Your task to perform on an android device: set default search engine in the chrome app Image 0: 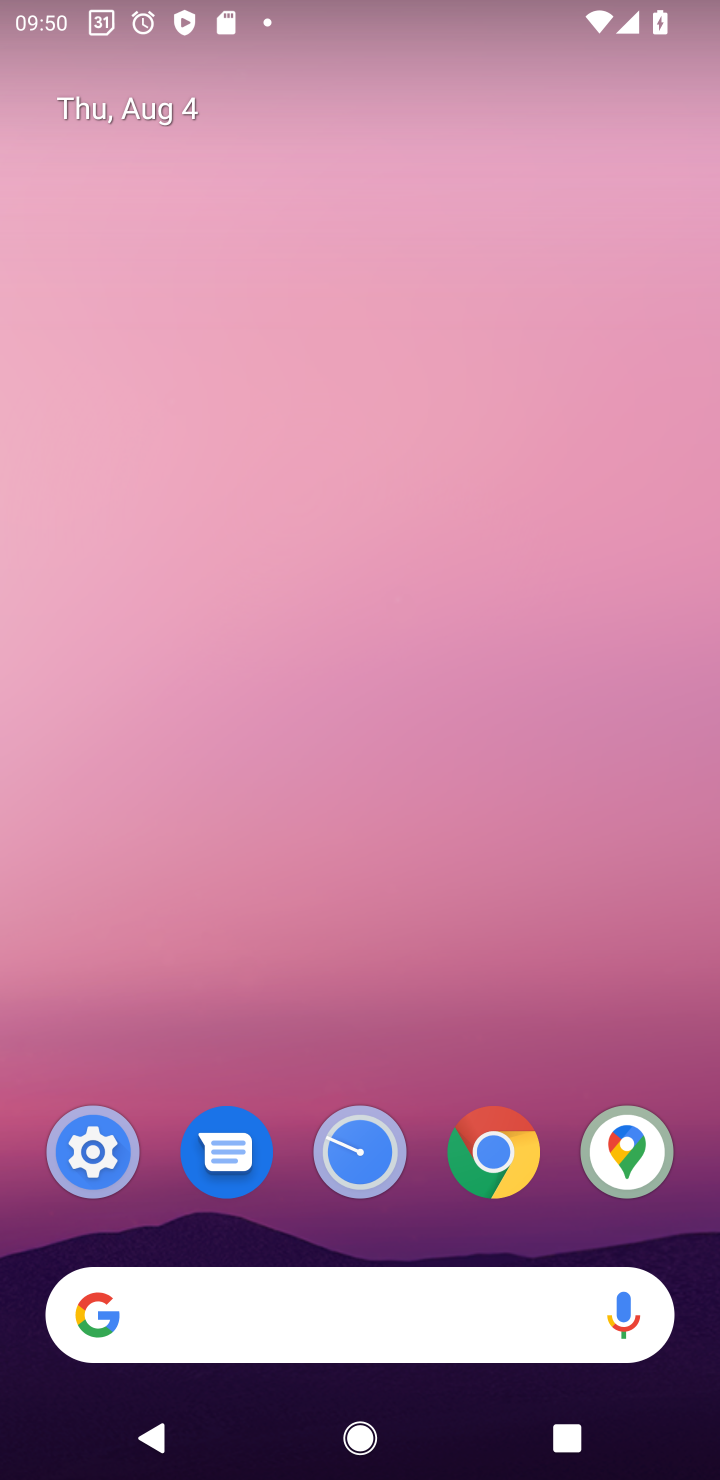
Step 0: click (502, 1155)
Your task to perform on an android device: set default search engine in the chrome app Image 1: 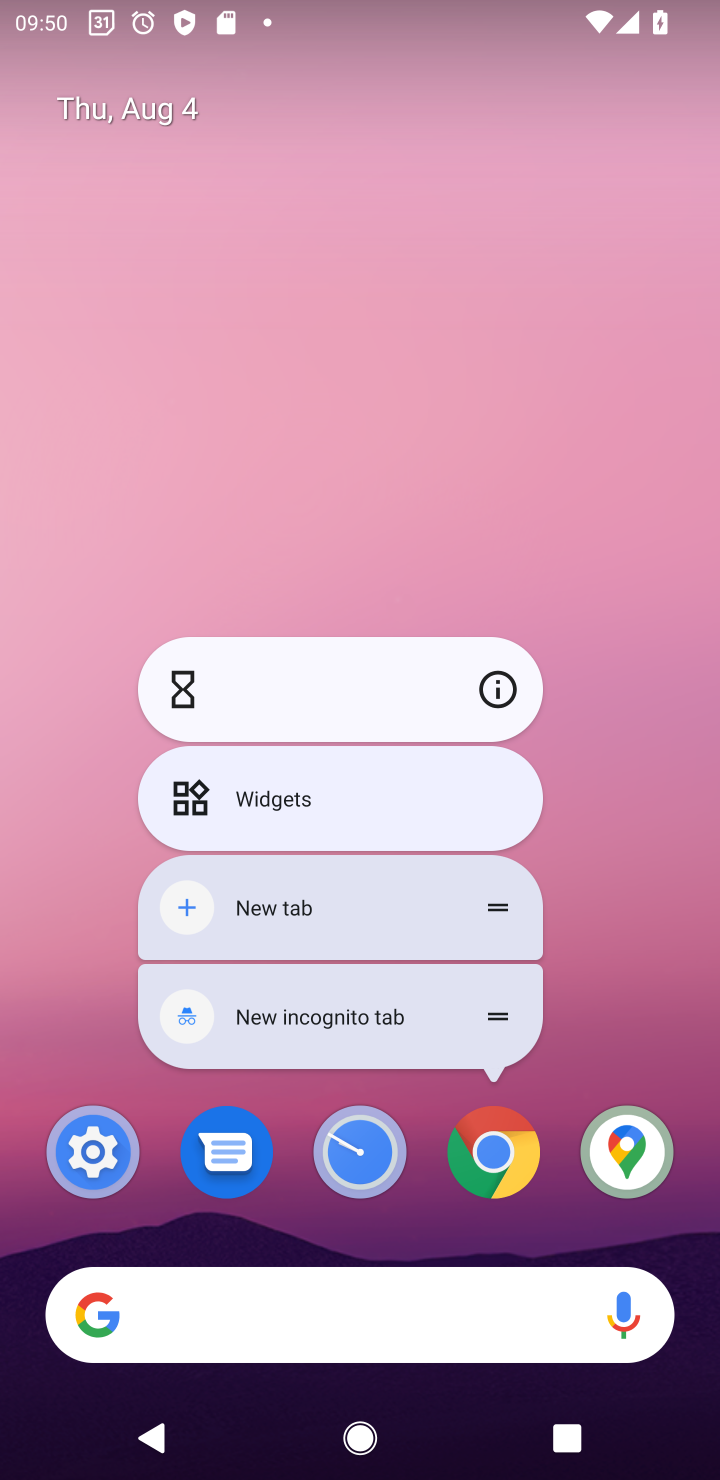
Step 1: click (507, 1138)
Your task to perform on an android device: set default search engine in the chrome app Image 2: 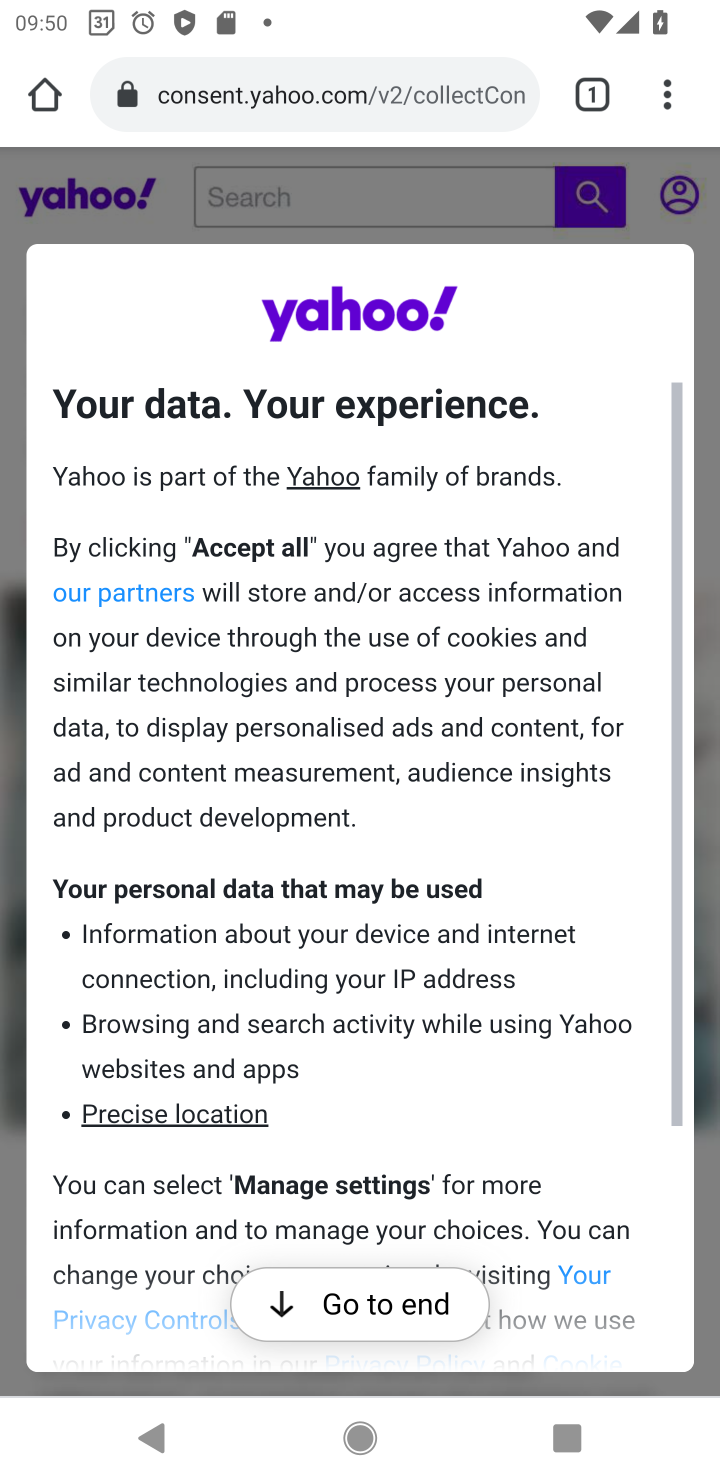
Step 2: click (673, 83)
Your task to perform on an android device: set default search engine in the chrome app Image 3: 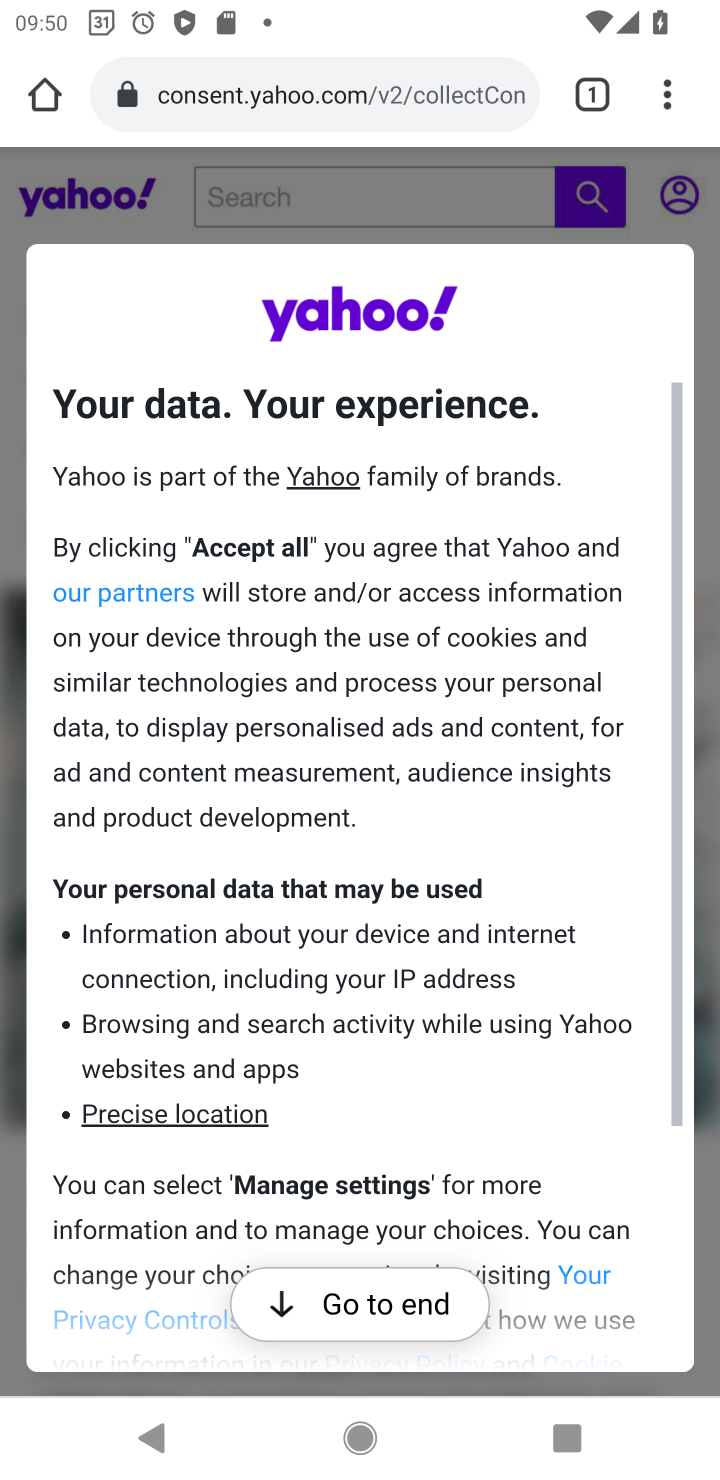
Step 3: click (667, 91)
Your task to perform on an android device: set default search engine in the chrome app Image 4: 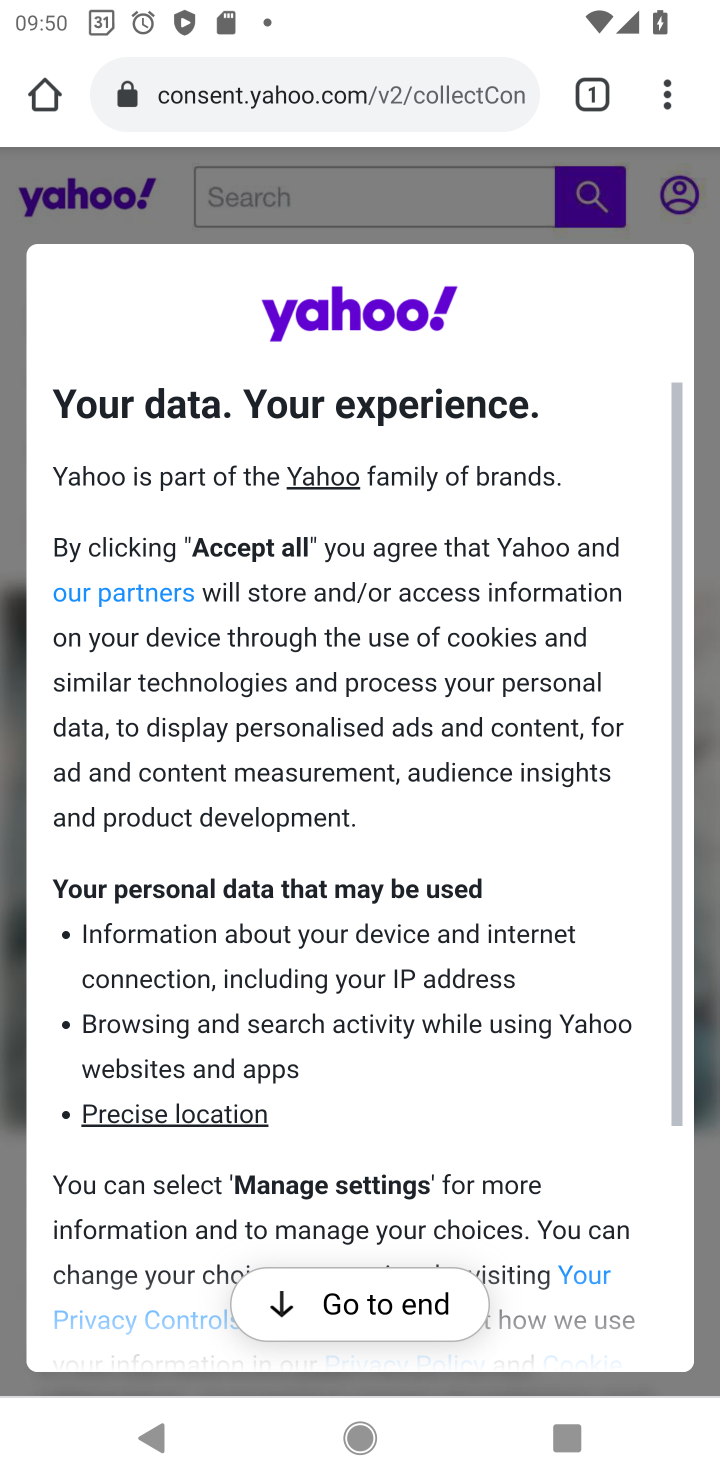
Step 4: click (666, 91)
Your task to perform on an android device: set default search engine in the chrome app Image 5: 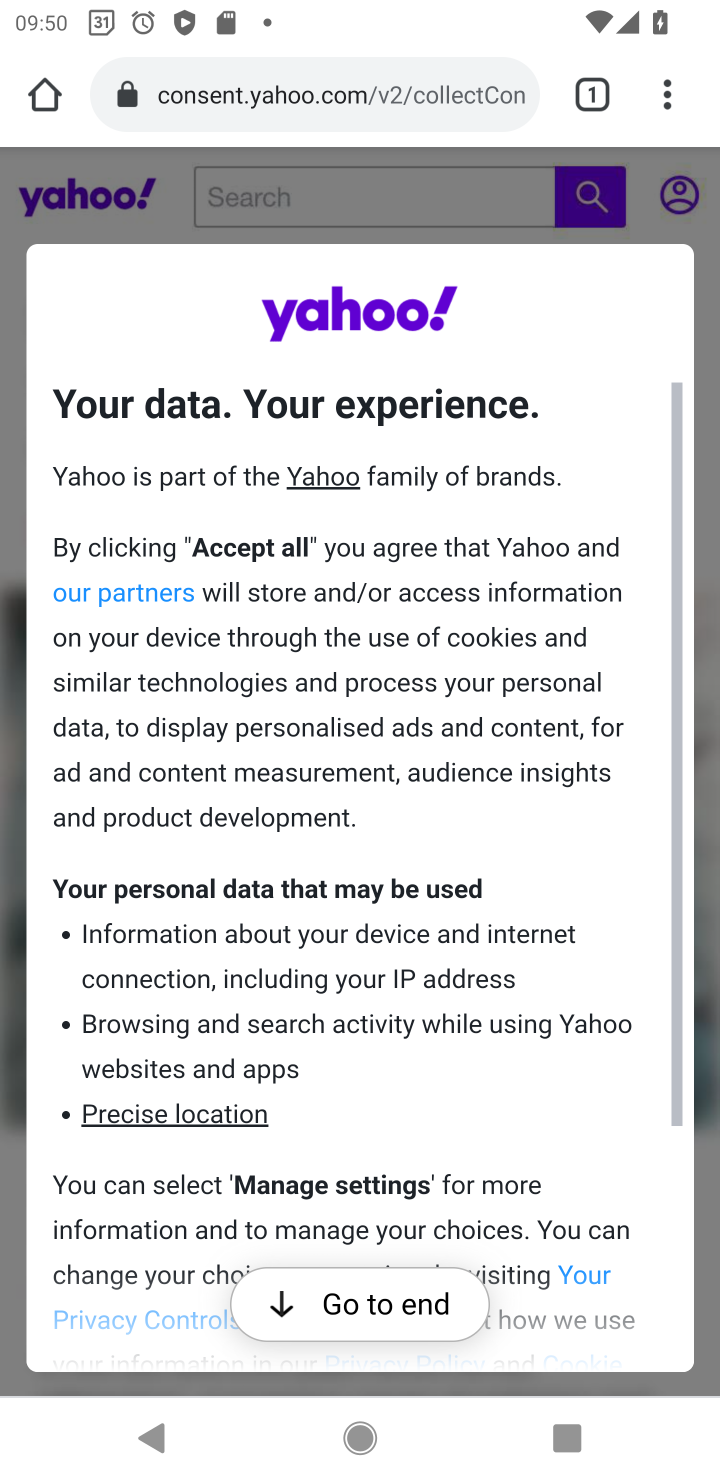
Step 5: click (662, 85)
Your task to perform on an android device: set default search engine in the chrome app Image 6: 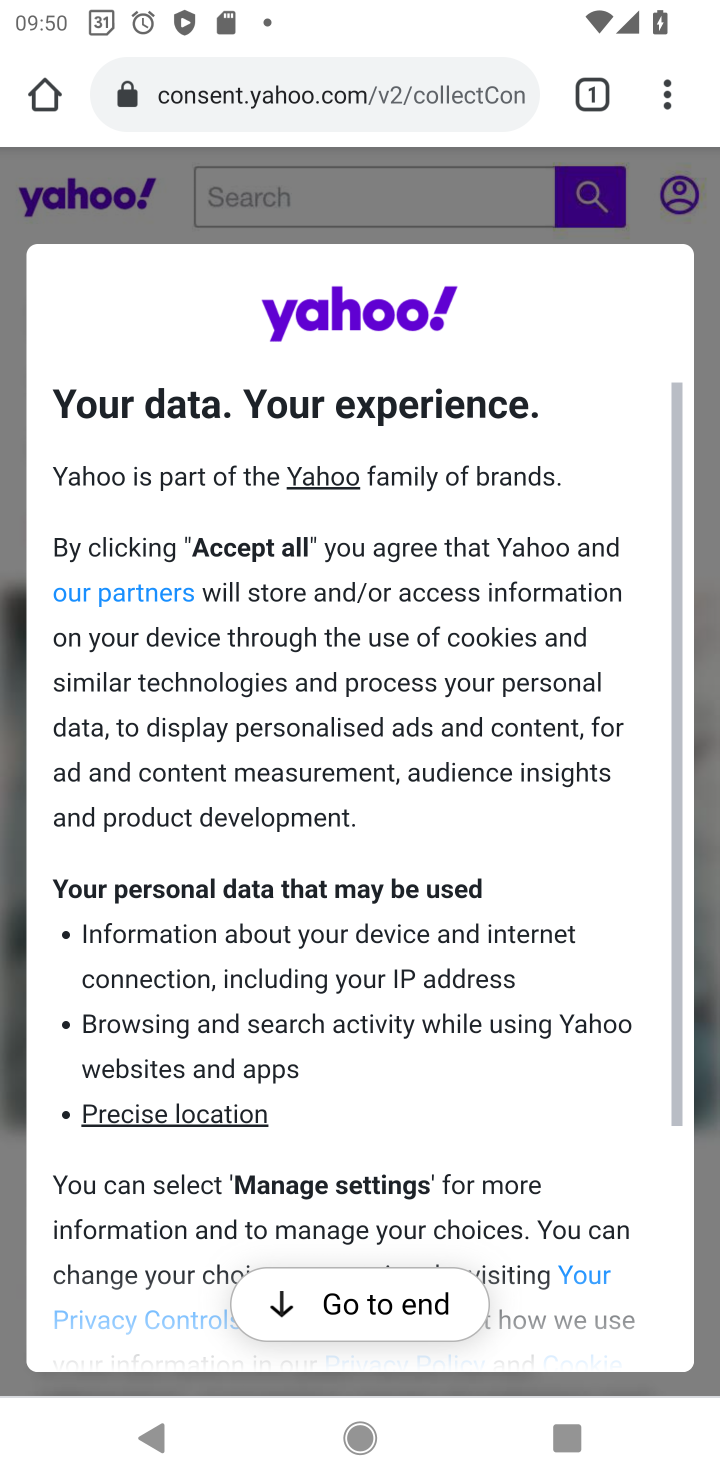
Step 6: click (675, 82)
Your task to perform on an android device: set default search engine in the chrome app Image 7: 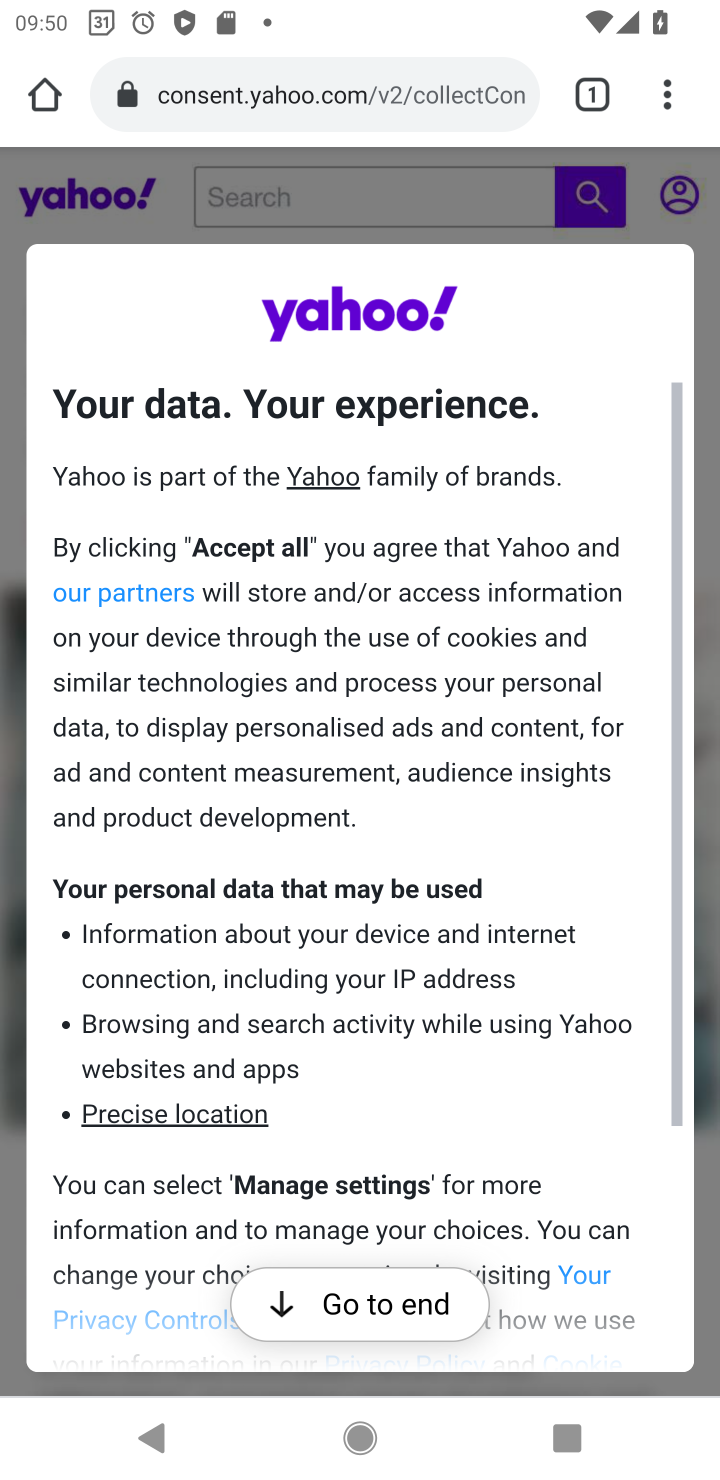
Step 7: click (661, 80)
Your task to perform on an android device: set default search engine in the chrome app Image 8: 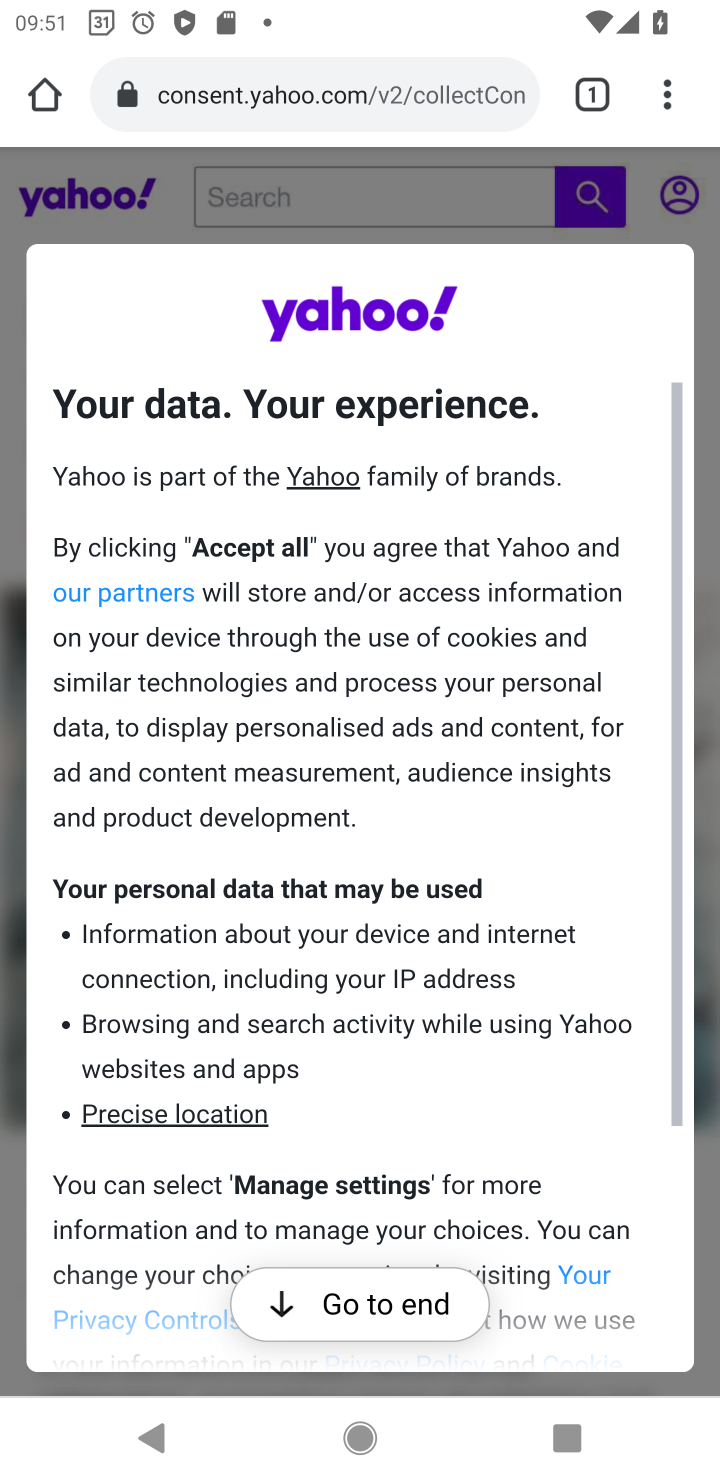
Step 8: click (668, 87)
Your task to perform on an android device: set default search engine in the chrome app Image 9: 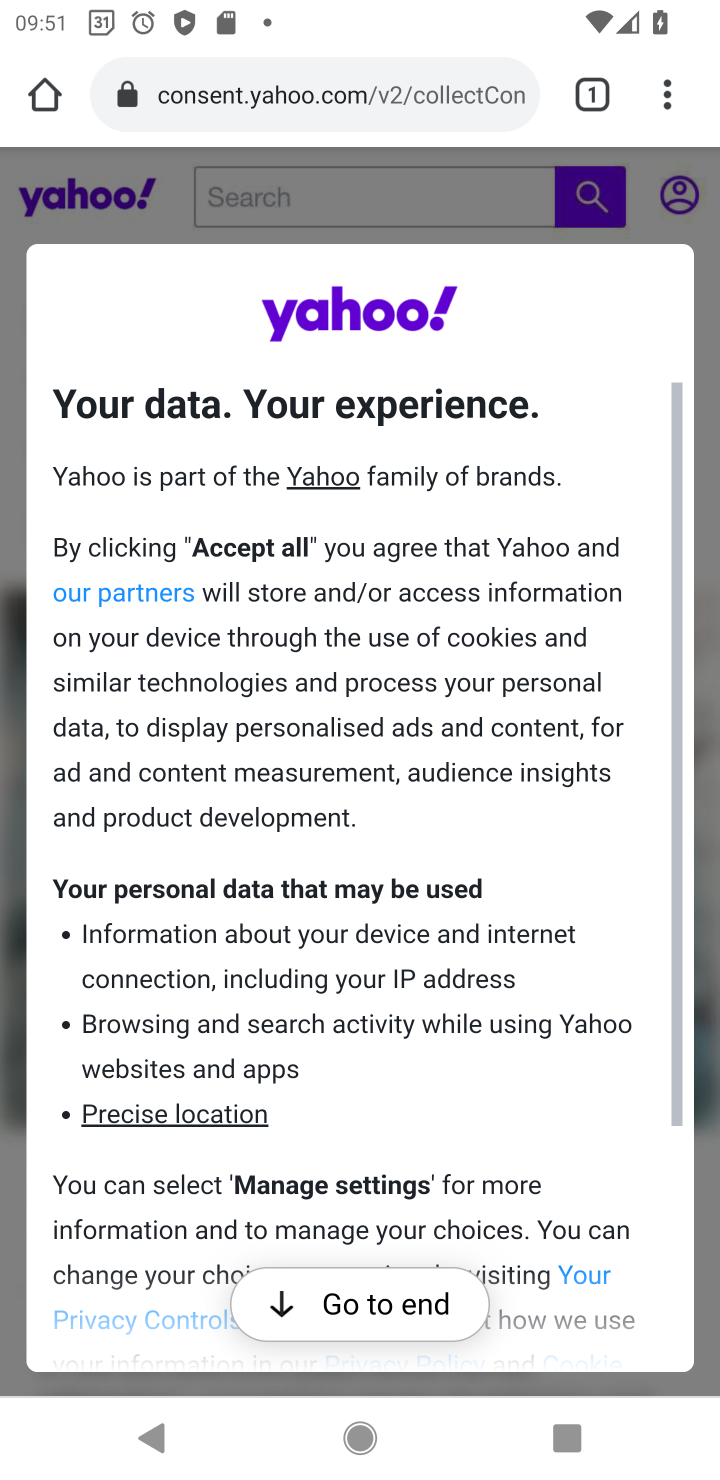
Step 9: click (658, 94)
Your task to perform on an android device: set default search engine in the chrome app Image 10: 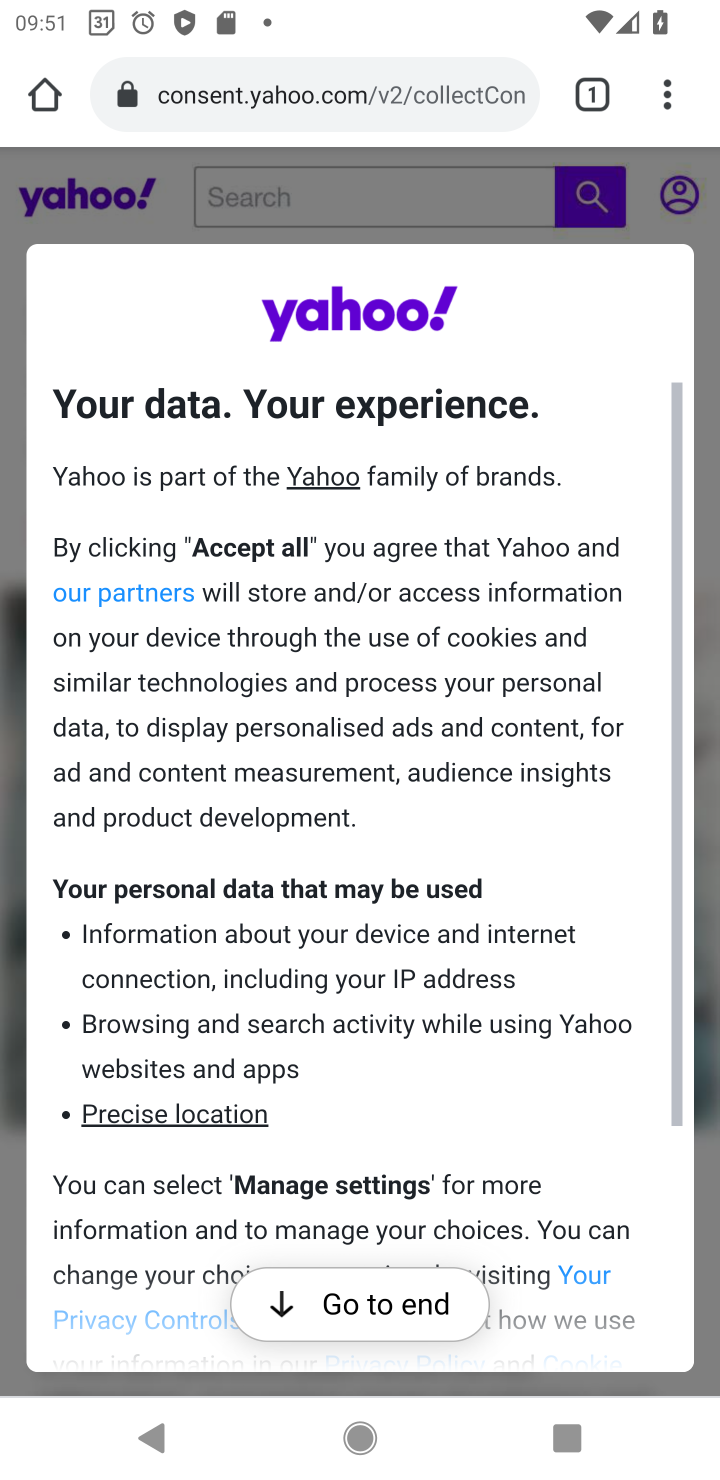
Step 10: click (665, 88)
Your task to perform on an android device: set default search engine in the chrome app Image 11: 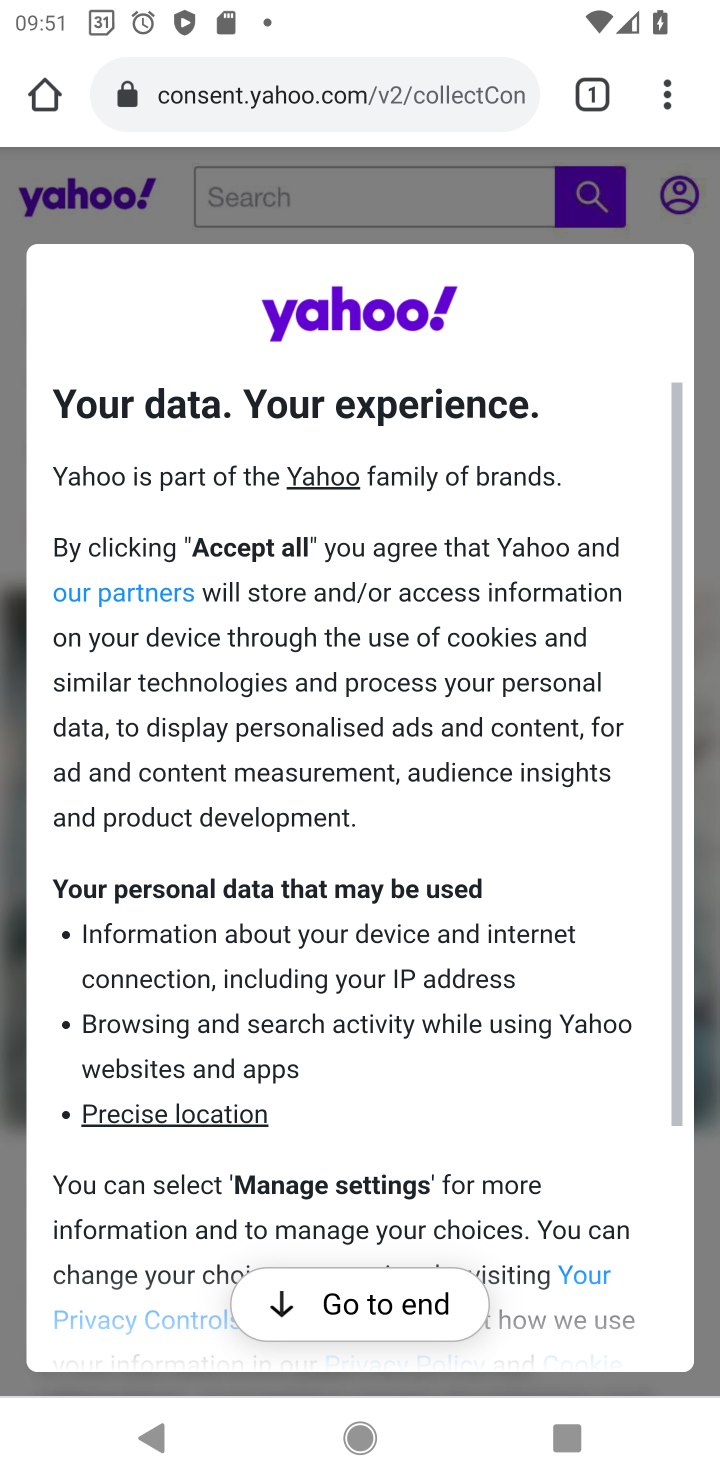
Step 11: task complete